Your task to perform on an android device: turn pop-ups off in chrome Image 0: 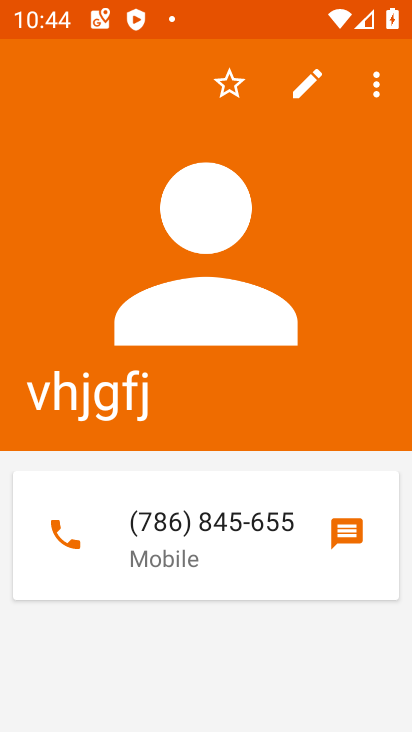
Step 0: press home button
Your task to perform on an android device: turn pop-ups off in chrome Image 1: 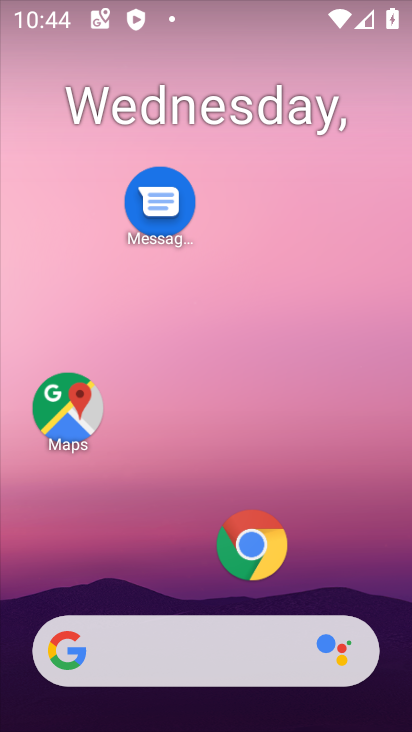
Step 1: click (226, 544)
Your task to perform on an android device: turn pop-ups off in chrome Image 2: 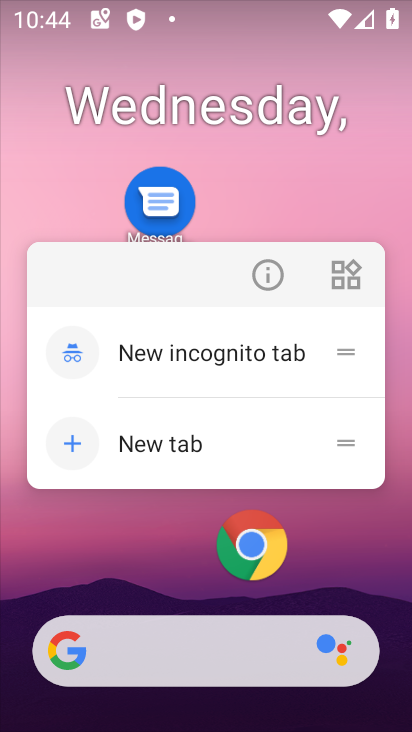
Step 2: click (258, 552)
Your task to perform on an android device: turn pop-ups off in chrome Image 3: 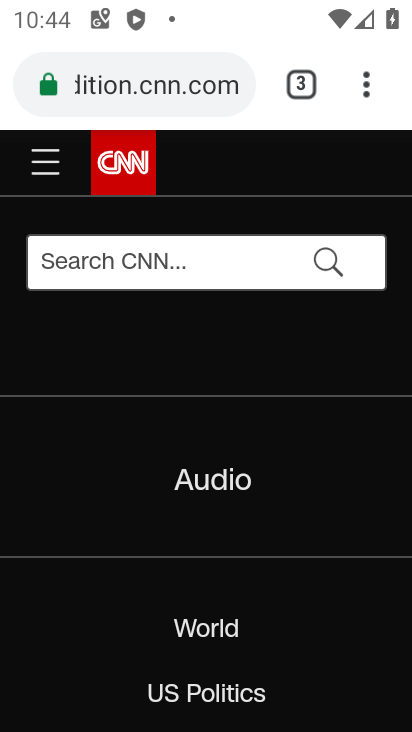
Step 3: click (363, 74)
Your task to perform on an android device: turn pop-ups off in chrome Image 4: 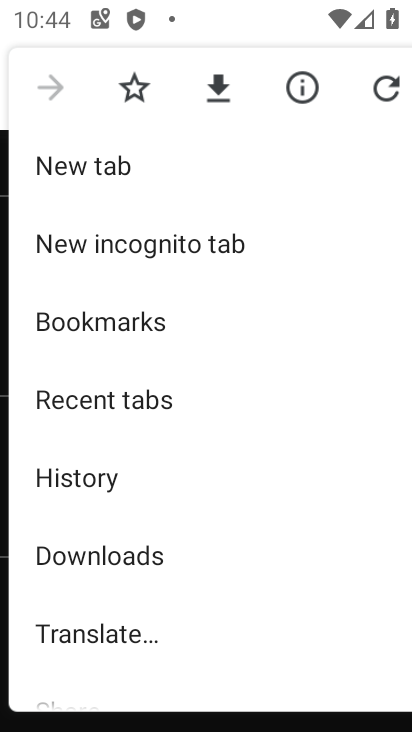
Step 4: drag from (218, 542) to (201, 355)
Your task to perform on an android device: turn pop-ups off in chrome Image 5: 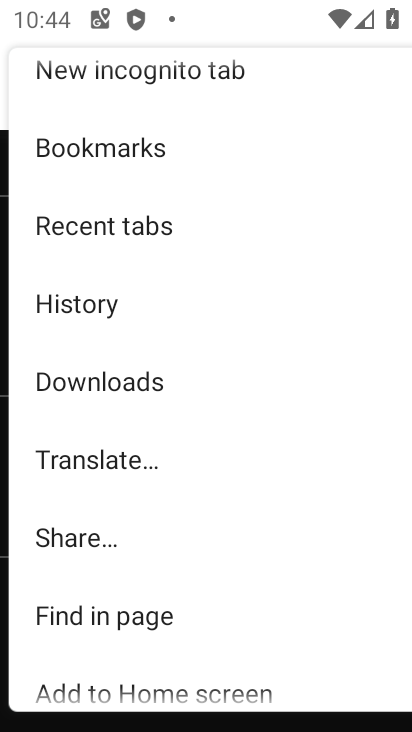
Step 5: drag from (131, 638) to (153, 315)
Your task to perform on an android device: turn pop-ups off in chrome Image 6: 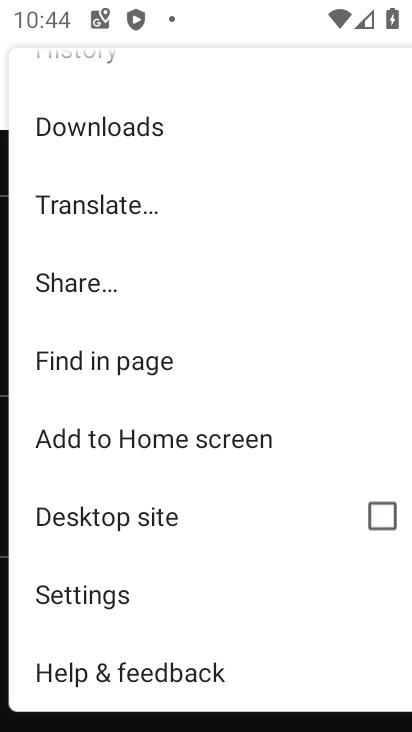
Step 6: drag from (155, 550) to (199, 331)
Your task to perform on an android device: turn pop-ups off in chrome Image 7: 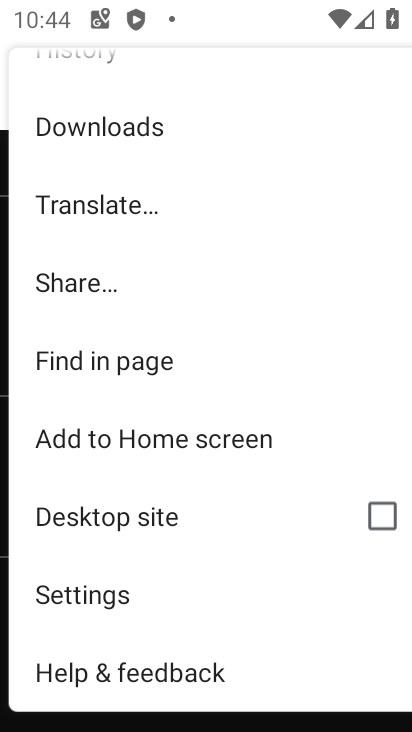
Step 7: click (80, 602)
Your task to perform on an android device: turn pop-ups off in chrome Image 8: 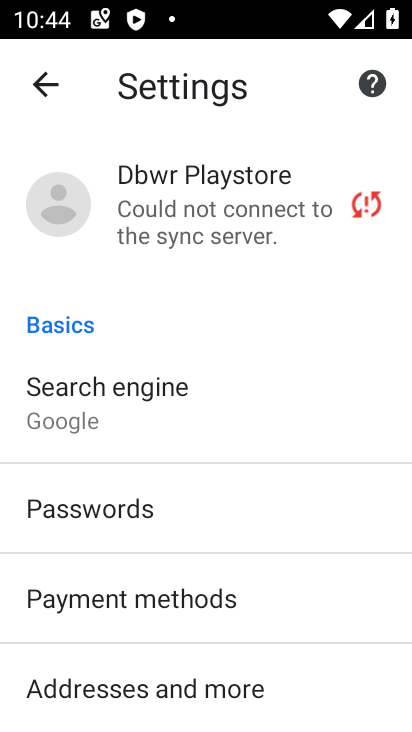
Step 8: drag from (182, 622) to (181, 355)
Your task to perform on an android device: turn pop-ups off in chrome Image 9: 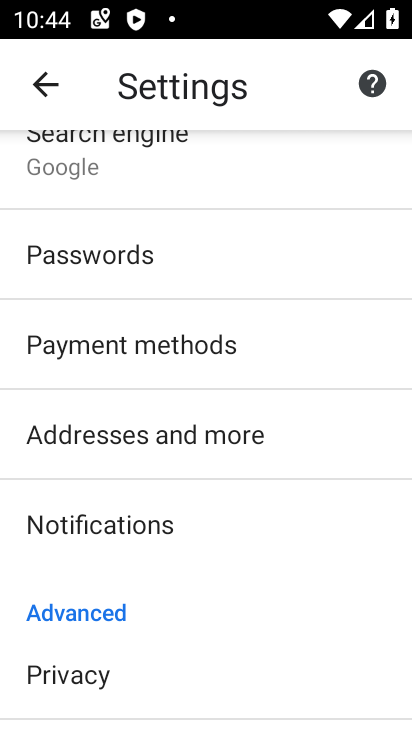
Step 9: drag from (189, 651) to (189, 425)
Your task to perform on an android device: turn pop-ups off in chrome Image 10: 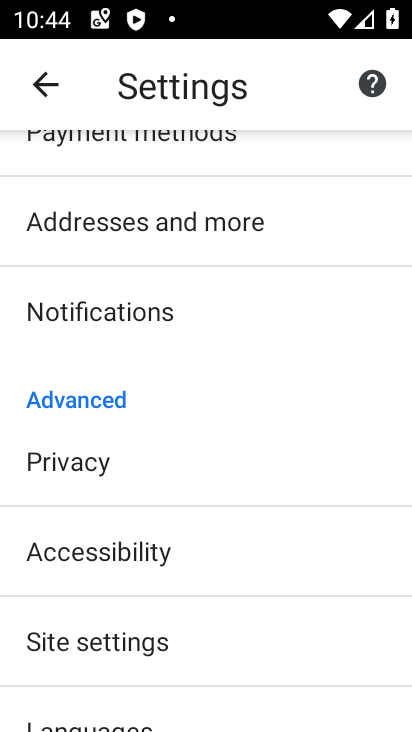
Step 10: drag from (150, 636) to (173, 375)
Your task to perform on an android device: turn pop-ups off in chrome Image 11: 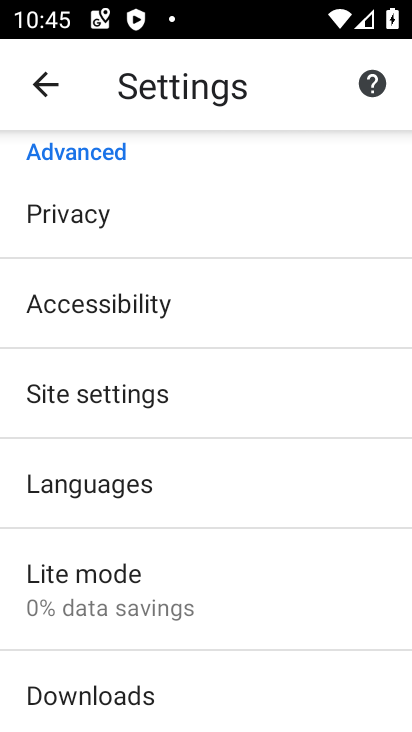
Step 11: click (155, 407)
Your task to perform on an android device: turn pop-ups off in chrome Image 12: 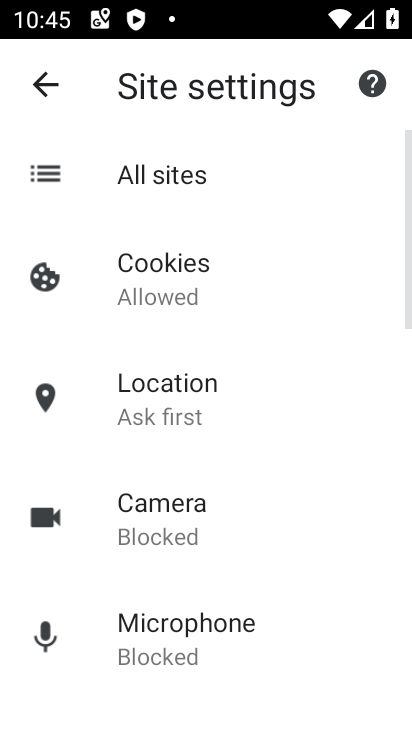
Step 12: drag from (253, 621) to (267, 305)
Your task to perform on an android device: turn pop-ups off in chrome Image 13: 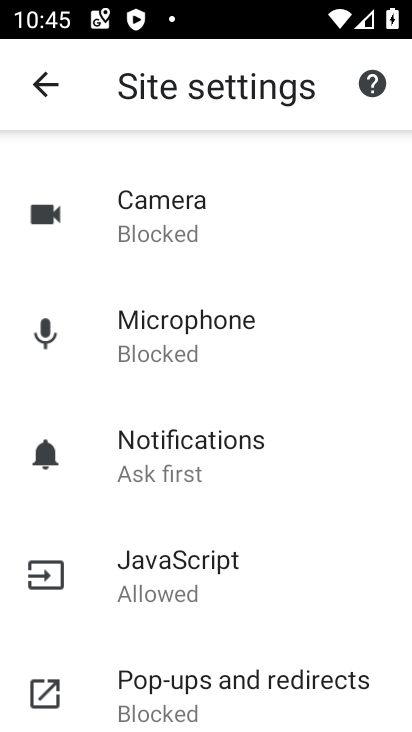
Step 13: click (237, 685)
Your task to perform on an android device: turn pop-ups off in chrome Image 14: 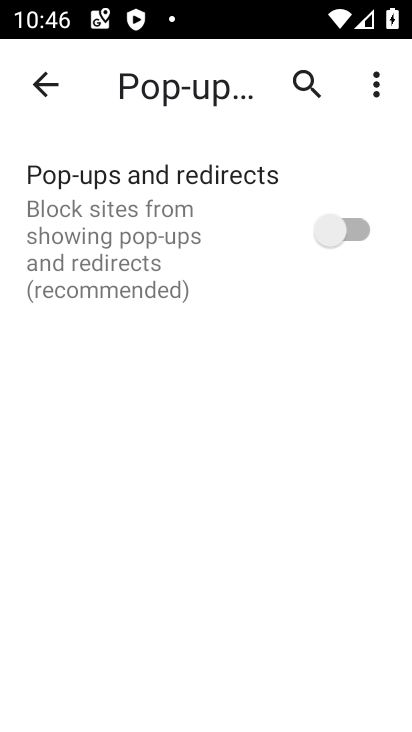
Step 14: task complete